Your task to perform on an android device: Show me productivity apps on the Play Store Image 0: 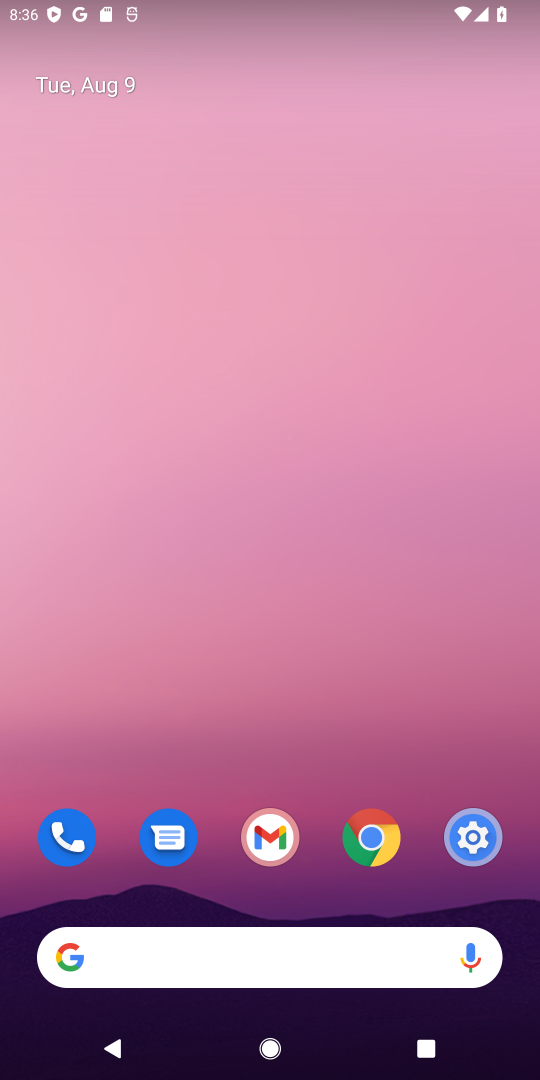
Step 0: drag from (318, 691) to (318, 11)
Your task to perform on an android device: Show me productivity apps on the Play Store Image 1: 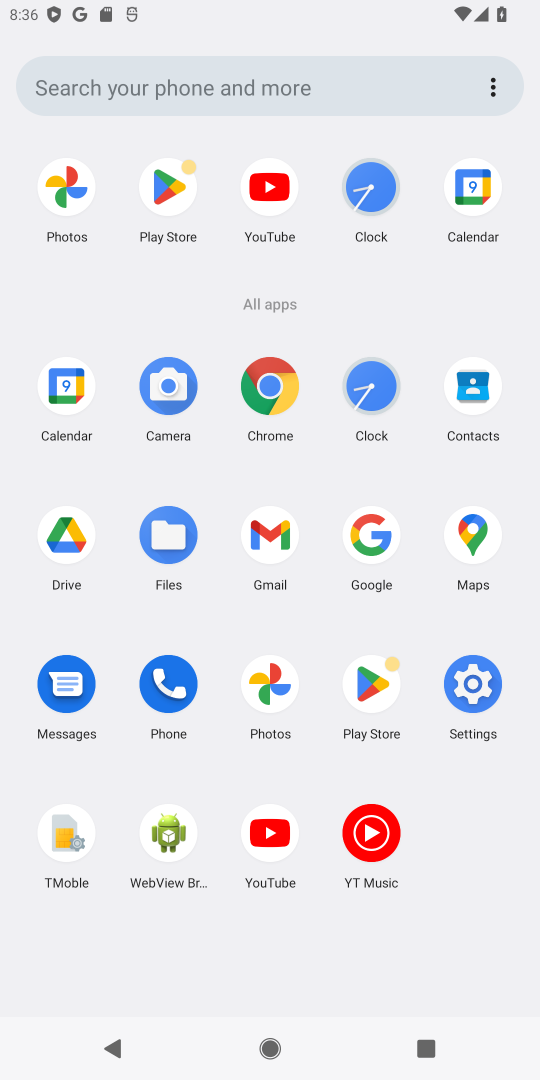
Step 1: click (370, 680)
Your task to perform on an android device: Show me productivity apps on the Play Store Image 2: 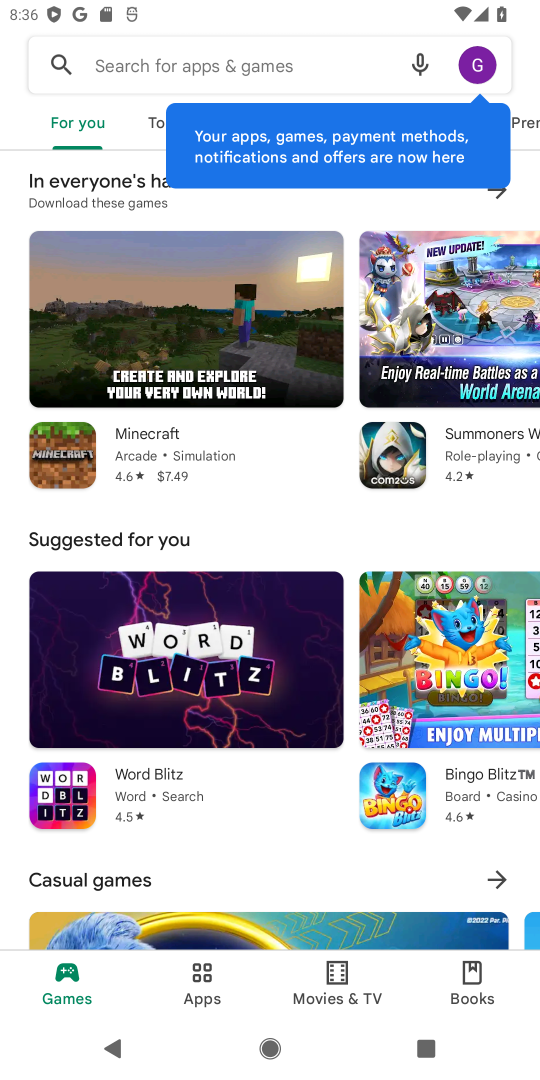
Step 2: click (205, 977)
Your task to perform on an android device: Show me productivity apps on the Play Store Image 3: 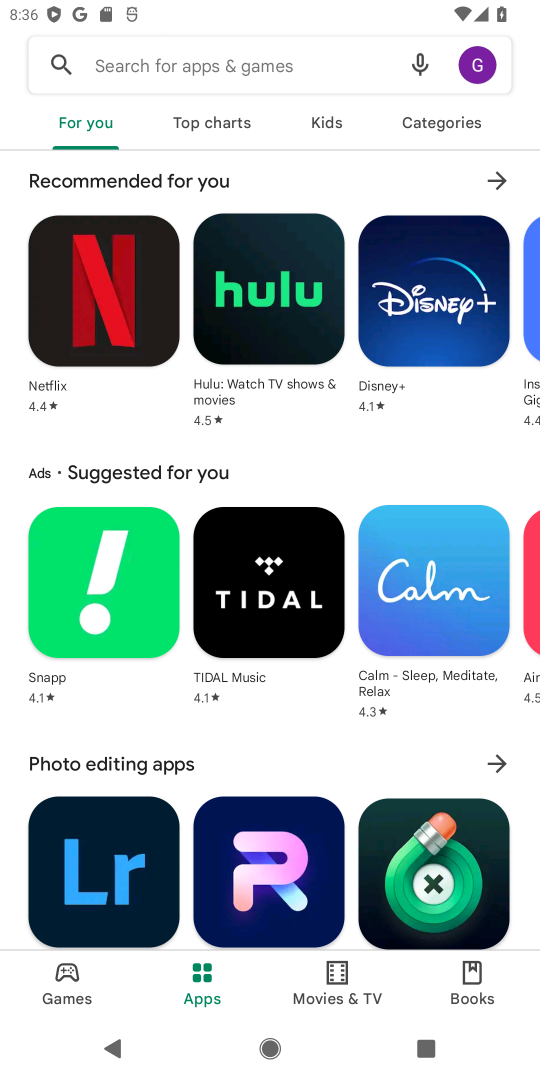
Step 3: click (436, 119)
Your task to perform on an android device: Show me productivity apps on the Play Store Image 4: 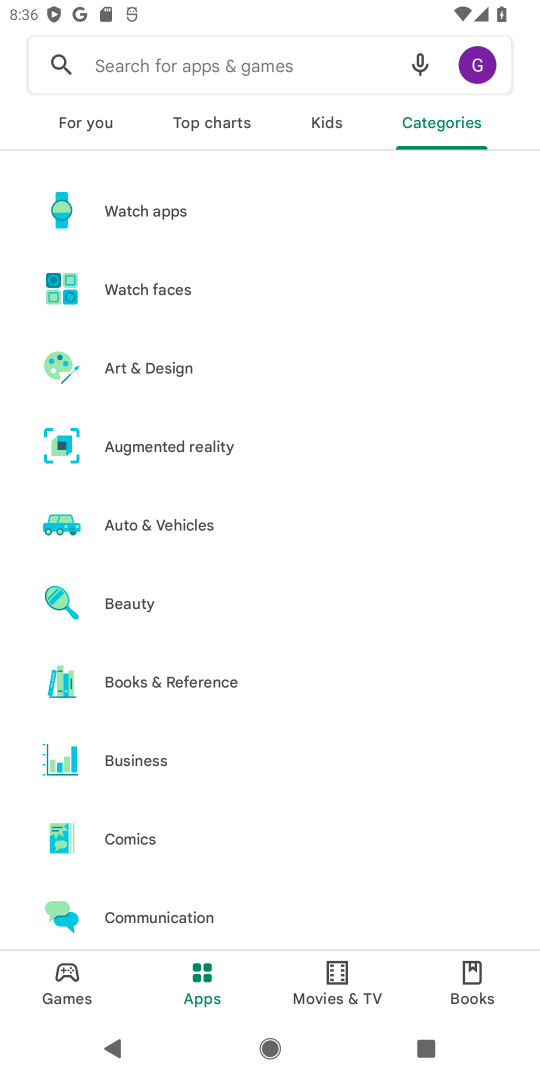
Step 4: drag from (132, 888) to (132, 401)
Your task to perform on an android device: Show me productivity apps on the Play Store Image 5: 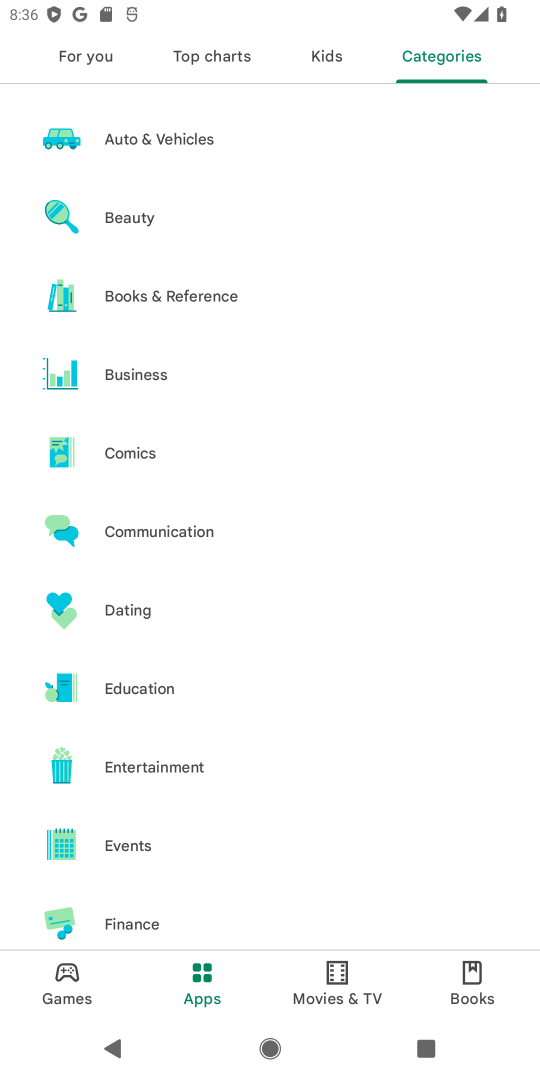
Step 5: drag from (149, 872) to (146, 341)
Your task to perform on an android device: Show me productivity apps on the Play Store Image 6: 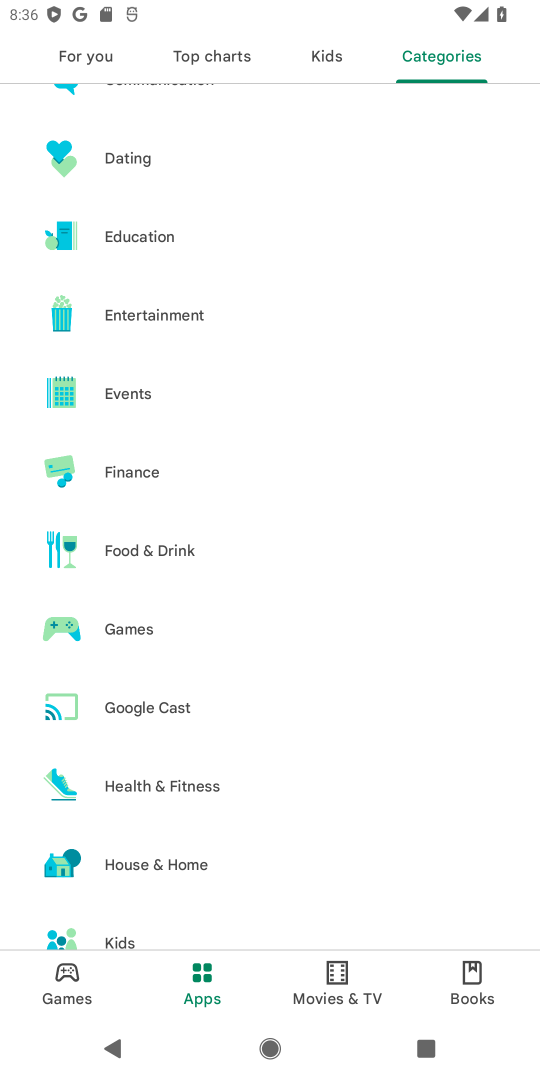
Step 6: drag from (162, 873) to (176, 484)
Your task to perform on an android device: Show me productivity apps on the Play Store Image 7: 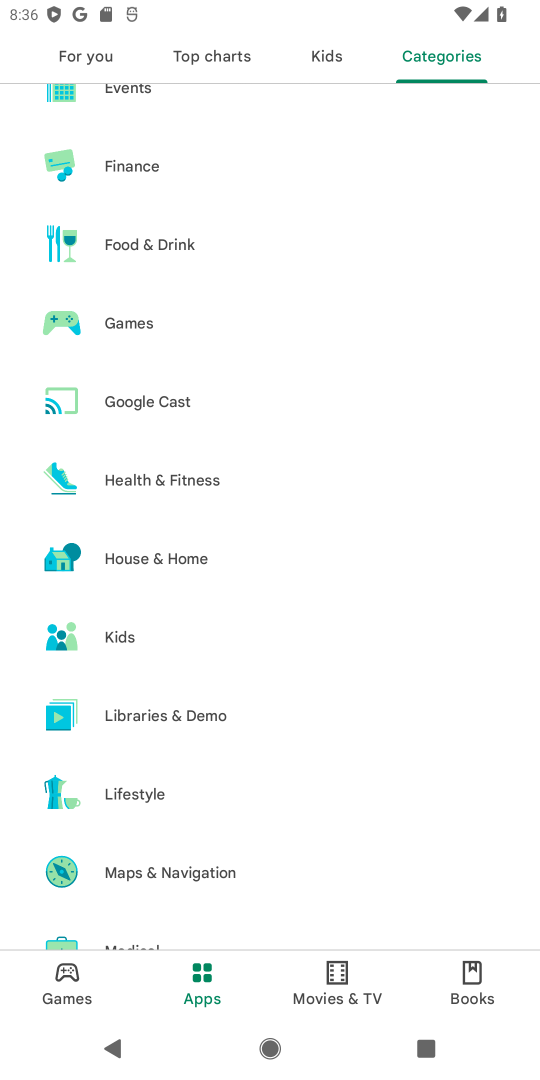
Step 7: drag from (126, 919) to (134, 401)
Your task to perform on an android device: Show me productivity apps on the Play Store Image 8: 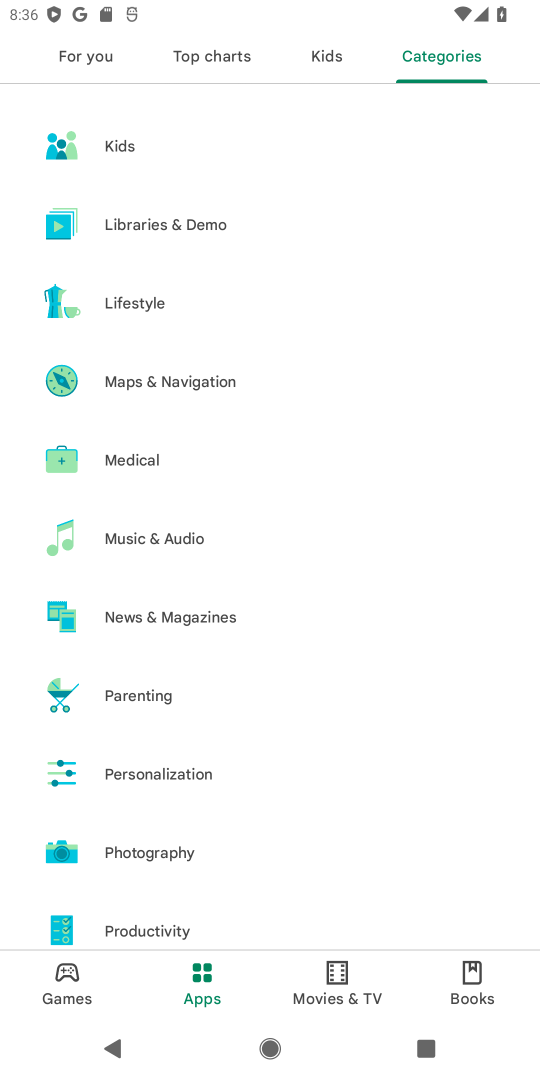
Step 8: click (145, 926)
Your task to perform on an android device: Show me productivity apps on the Play Store Image 9: 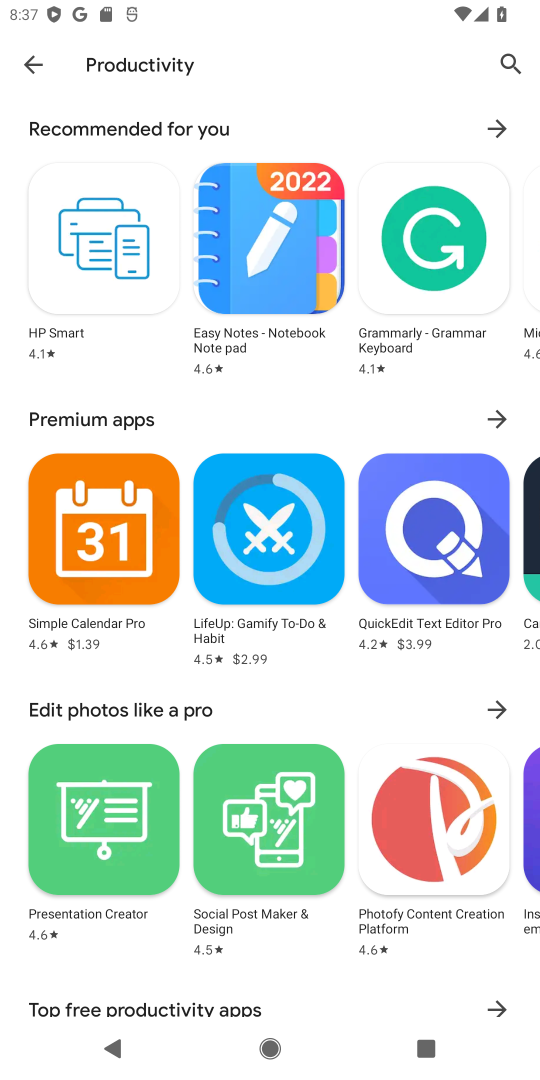
Step 9: task complete